Your task to perform on an android device: Toggle the flashlight Image 0: 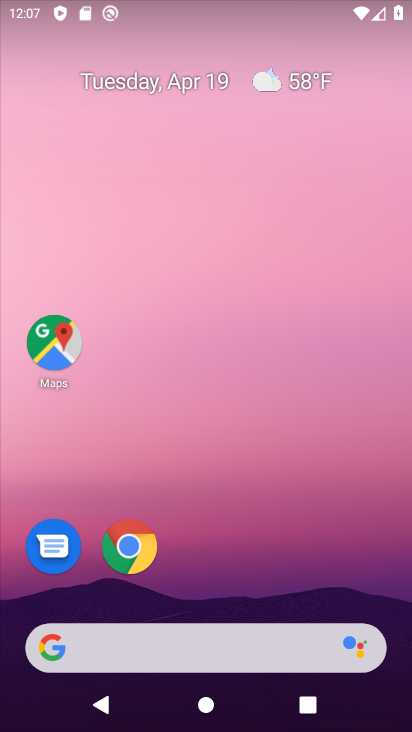
Step 0: drag from (228, 279) to (254, 63)
Your task to perform on an android device: Toggle the flashlight Image 1: 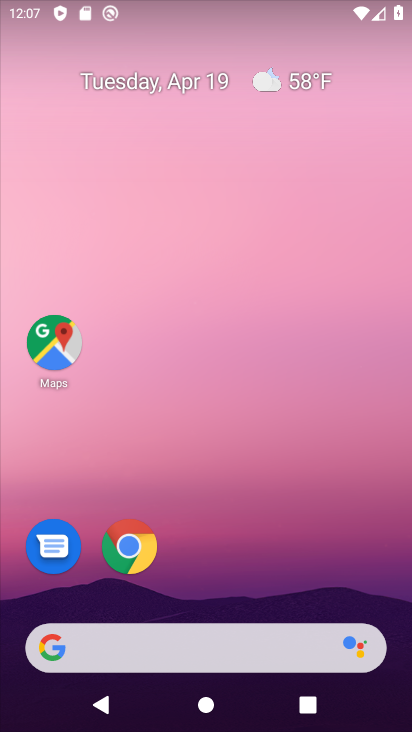
Step 1: task complete